Your task to perform on an android device: Empty the shopping cart on newegg.com. Image 0: 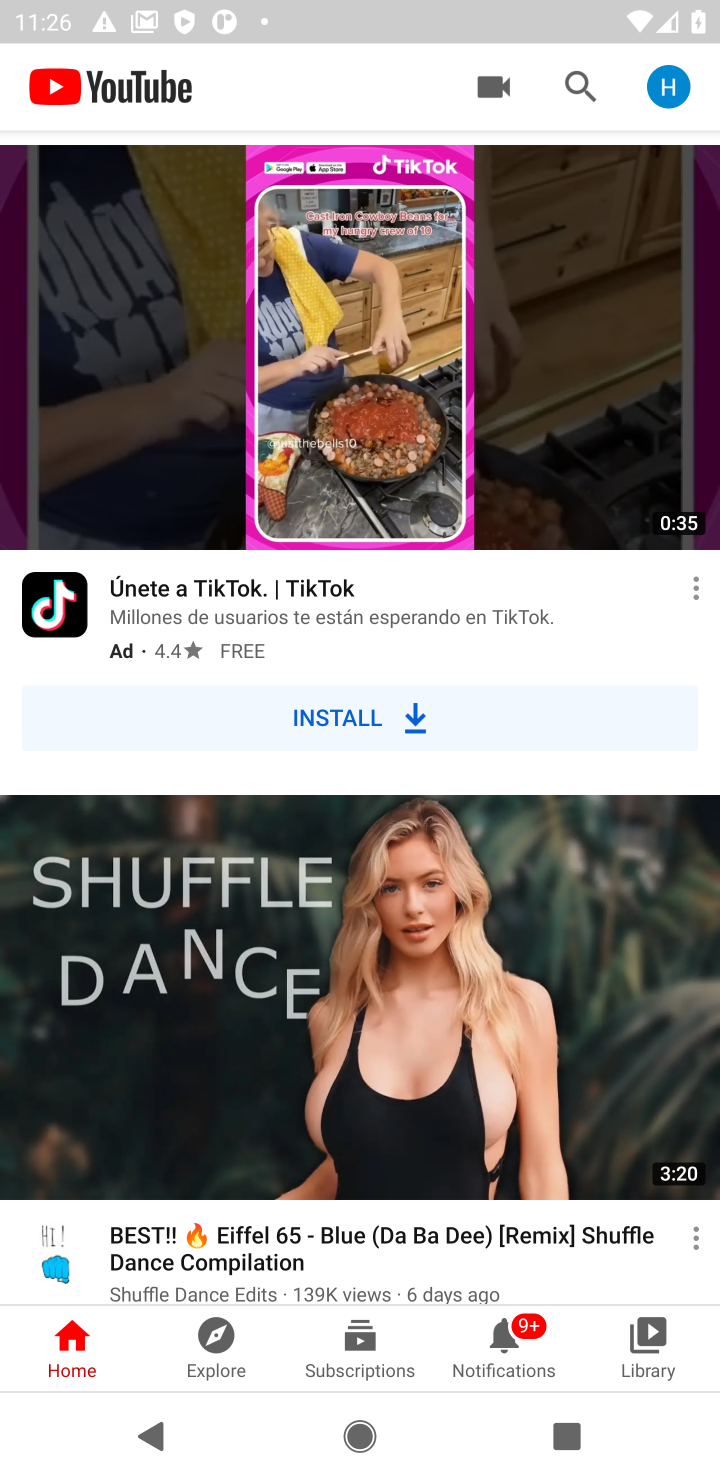
Step 0: press home button
Your task to perform on an android device: Empty the shopping cart on newegg.com. Image 1: 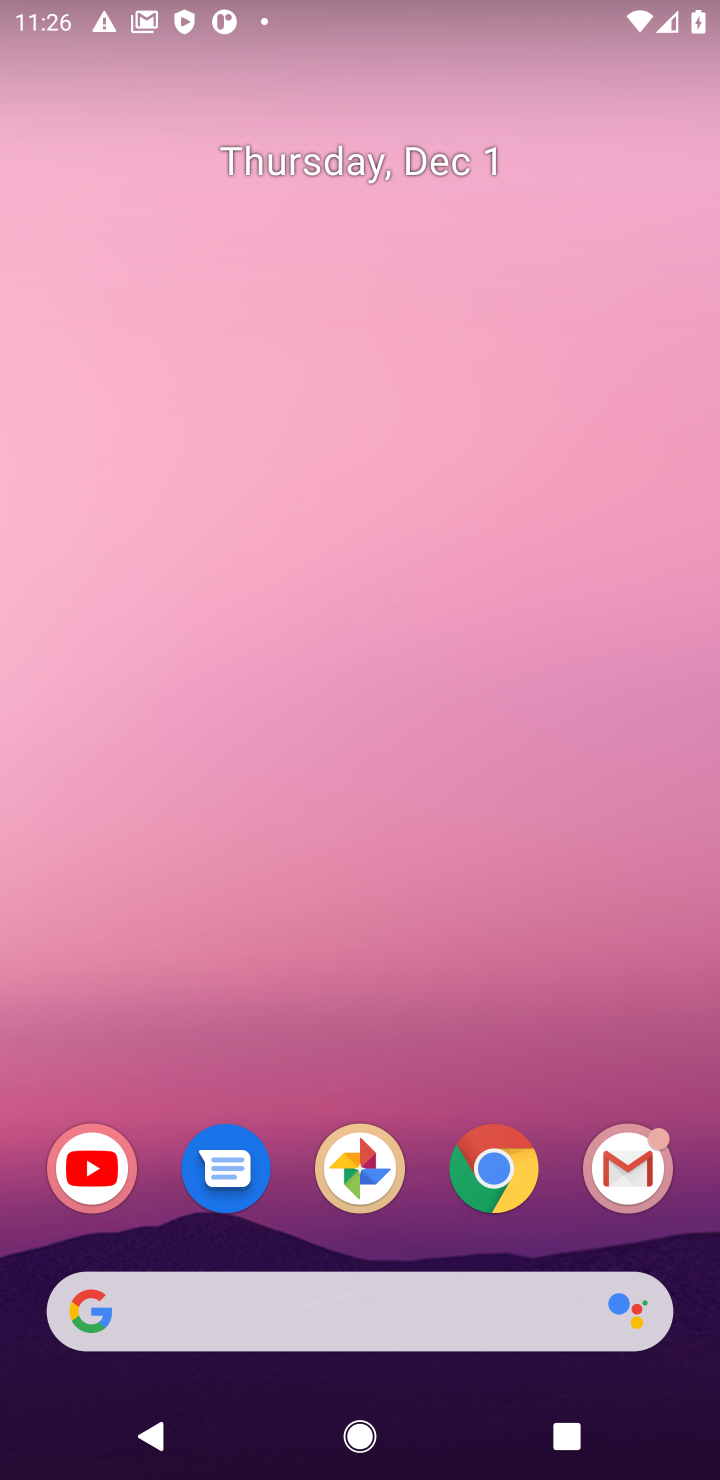
Step 1: click (489, 1177)
Your task to perform on an android device: Empty the shopping cart on newegg.com. Image 2: 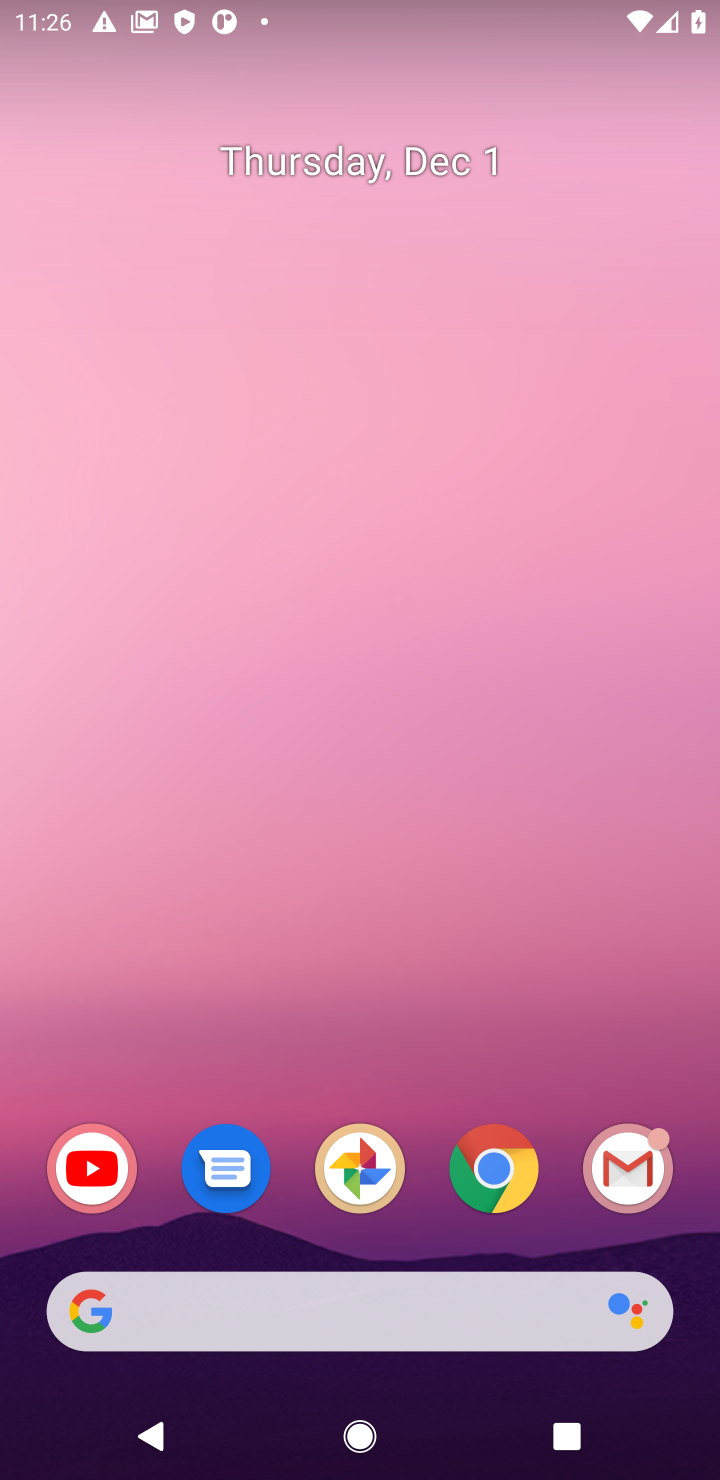
Step 2: click (489, 1177)
Your task to perform on an android device: Empty the shopping cart on newegg.com. Image 3: 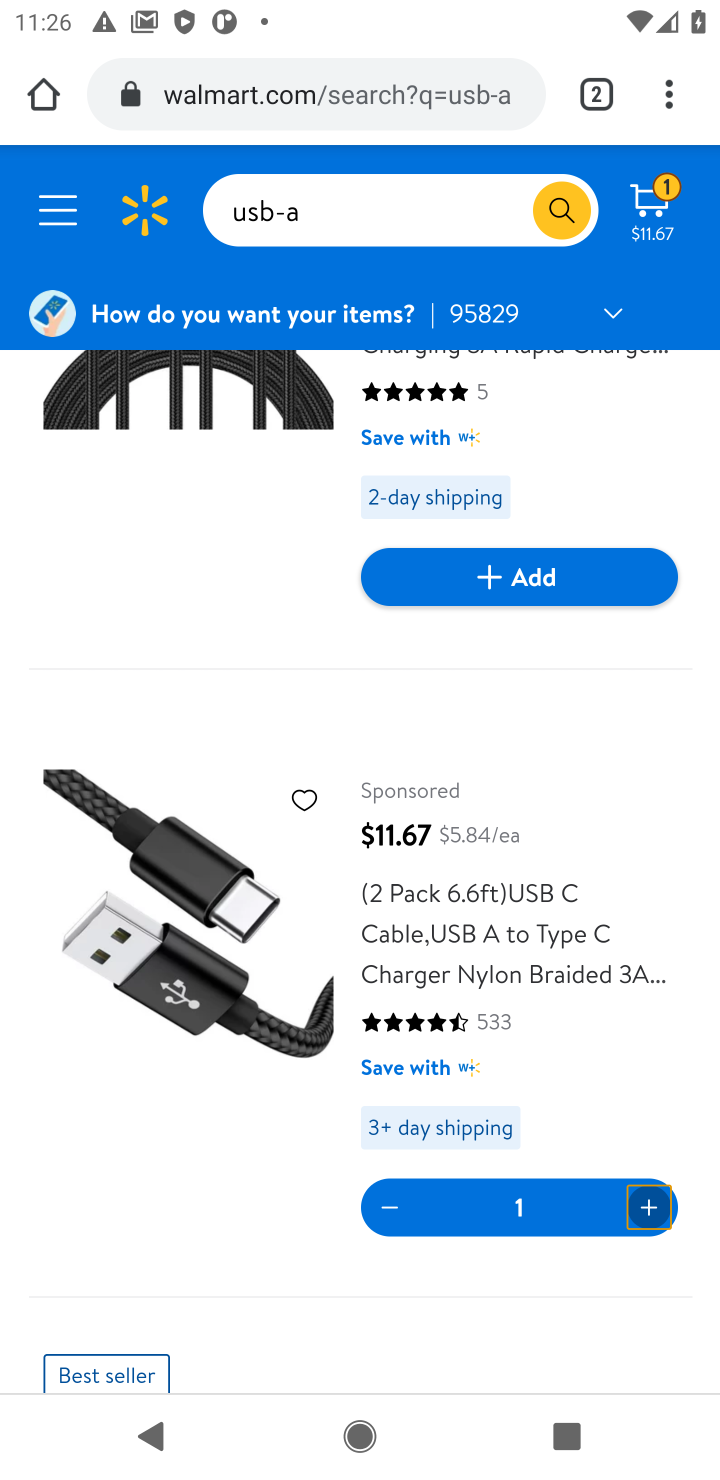
Step 3: click (295, 92)
Your task to perform on an android device: Empty the shopping cart on newegg.com. Image 4: 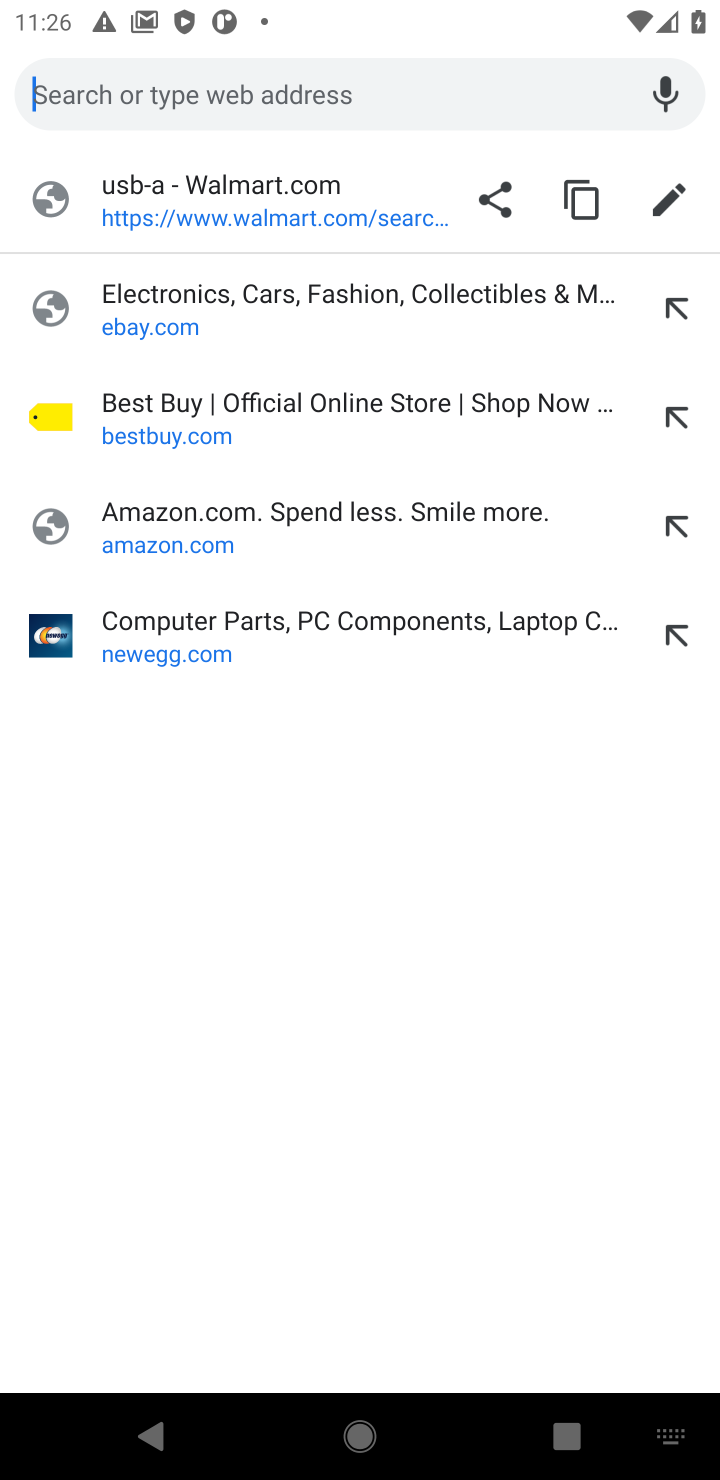
Step 4: click (148, 627)
Your task to perform on an android device: Empty the shopping cart on newegg.com. Image 5: 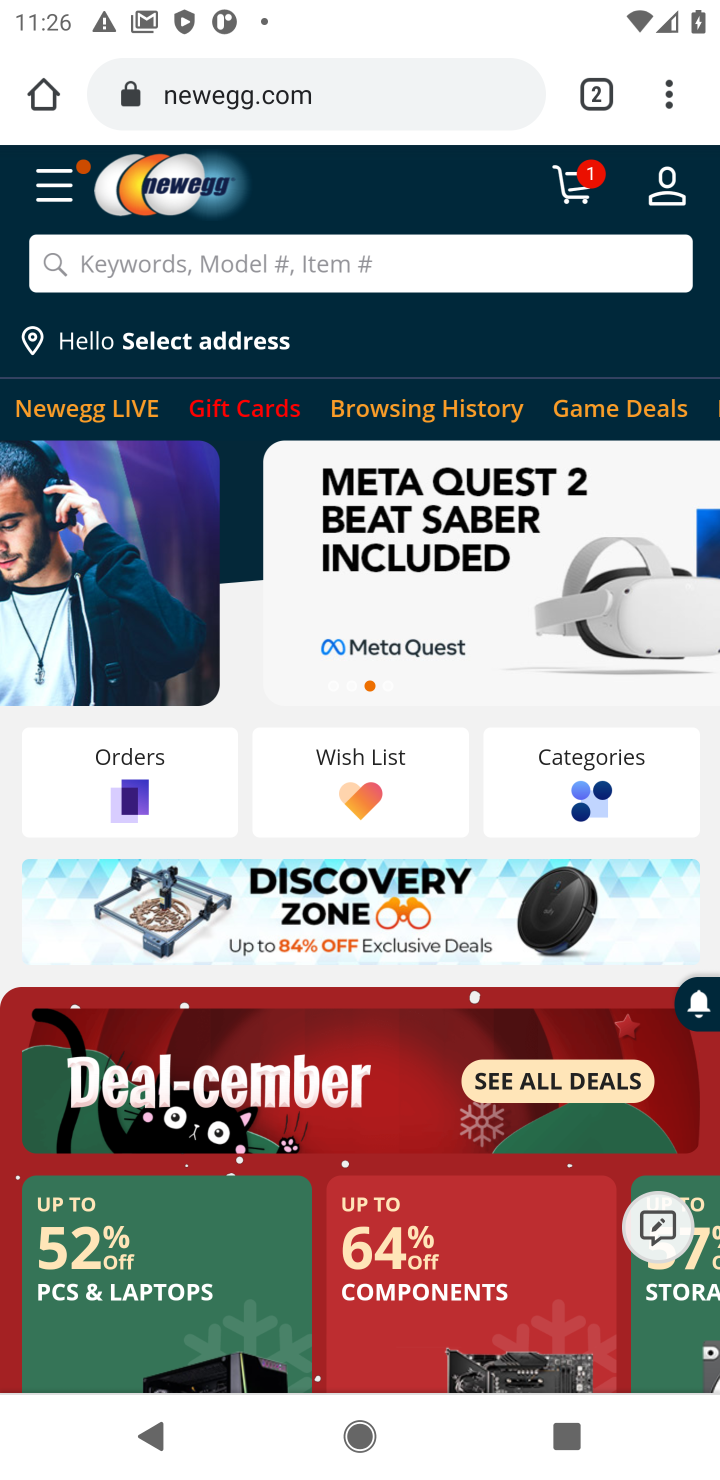
Step 5: click (574, 192)
Your task to perform on an android device: Empty the shopping cart on newegg.com. Image 6: 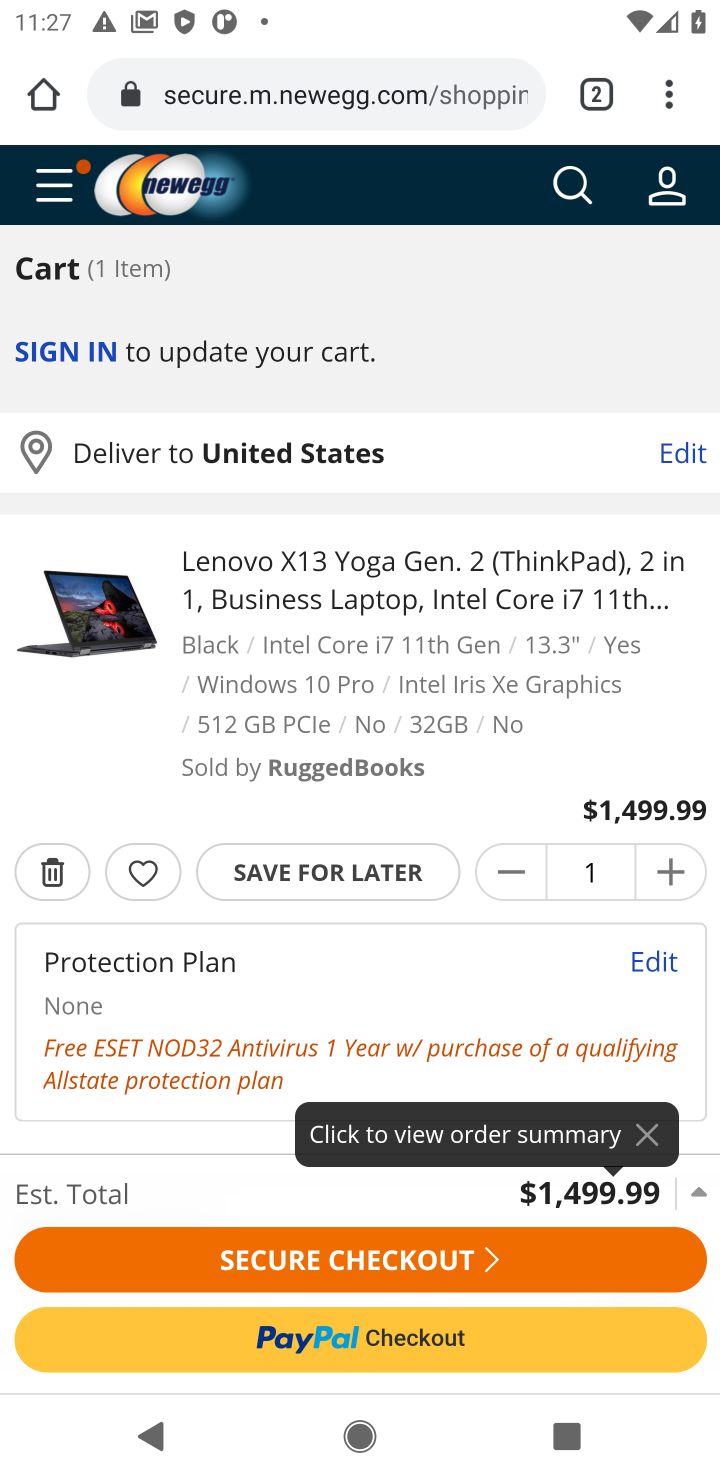
Step 6: click (48, 880)
Your task to perform on an android device: Empty the shopping cart on newegg.com. Image 7: 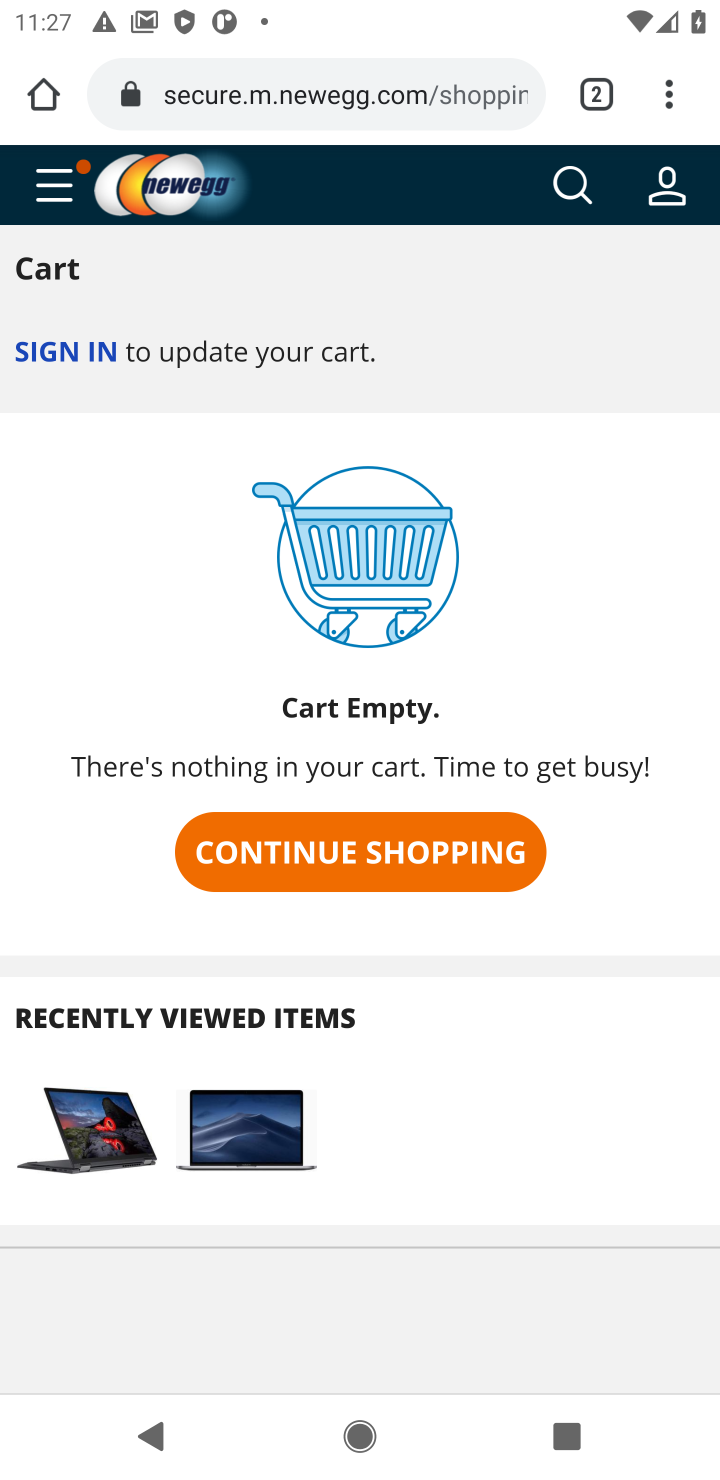
Step 7: task complete